Your task to perform on an android device: visit the assistant section in the google photos Image 0: 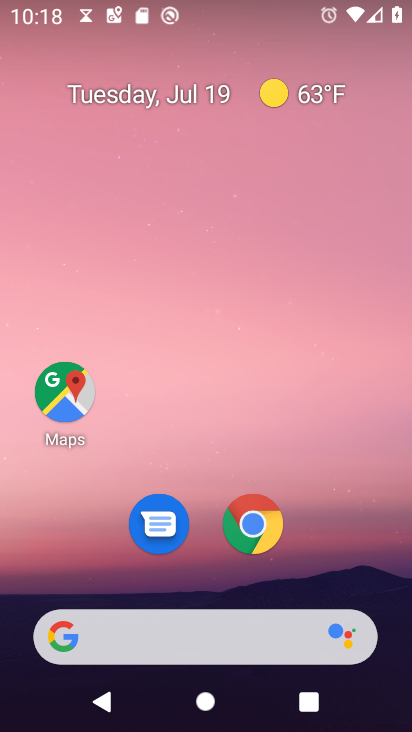
Step 0: drag from (164, 633) to (278, 15)
Your task to perform on an android device: visit the assistant section in the google photos Image 1: 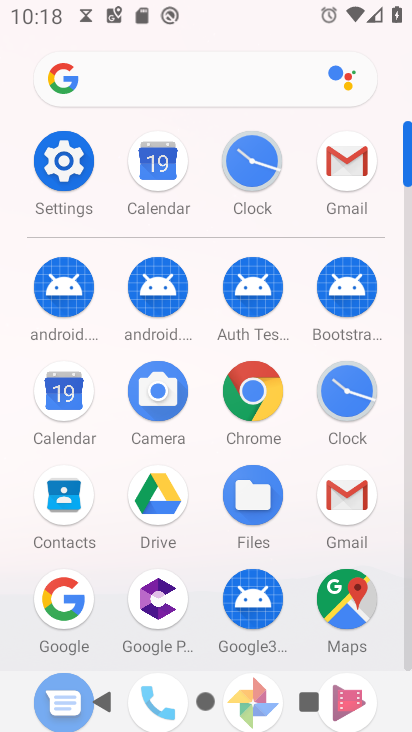
Step 1: drag from (213, 546) to (331, 100)
Your task to perform on an android device: visit the assistant section in the google photos Image 2: 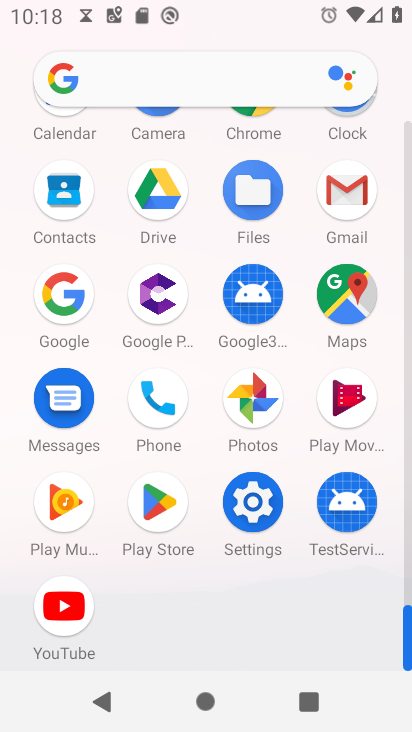
Step 2: click (246, 401)
Your task to perform on an android device: visit the assistant section in the google photos Image 3: 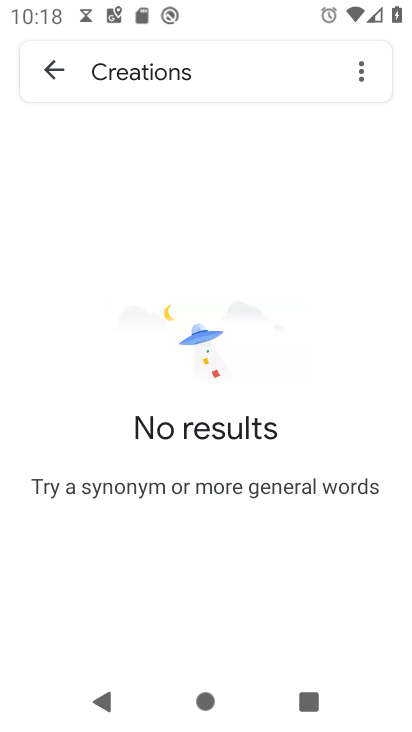
Step 3: click (49, 60)
Your task to perform on an android device: visit the assistant section in the google photos Image 4: 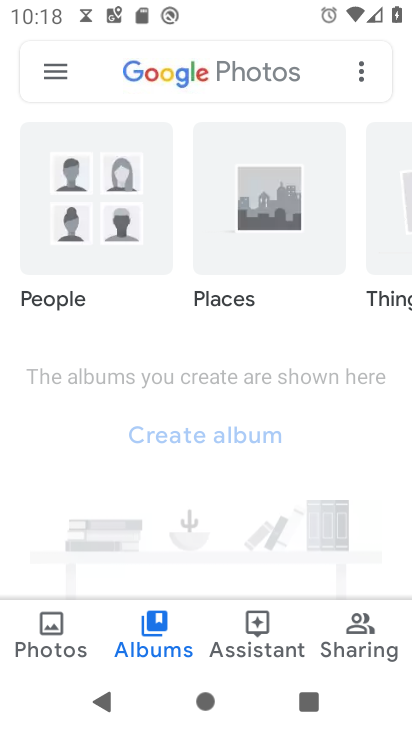
Step 4: click (258, 629)
Your task to perform on an android device: visit the assistant section in the google photos Image 5: 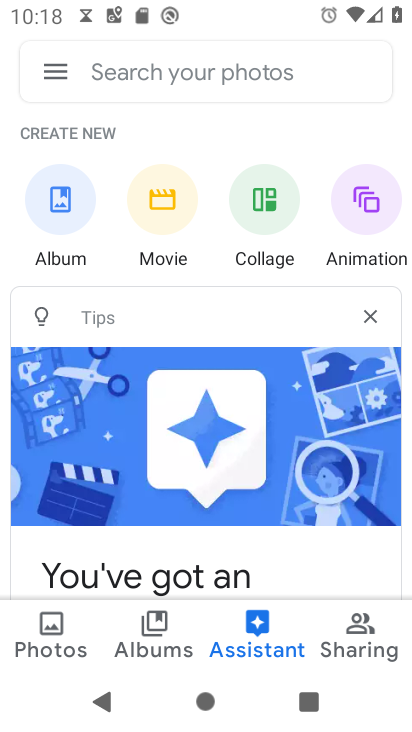
Step 5: task complete